Your task to perform on an android device: Toggle the flashlight Image 0: 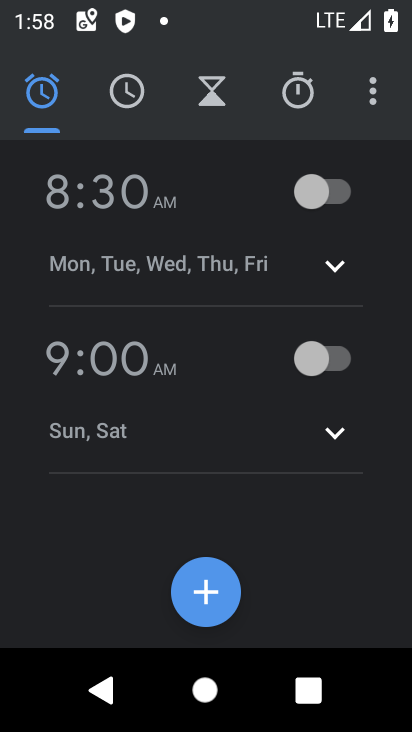
Step 0: press home button
Your task to perform on an android device: Toggle the flashlight Image 1: 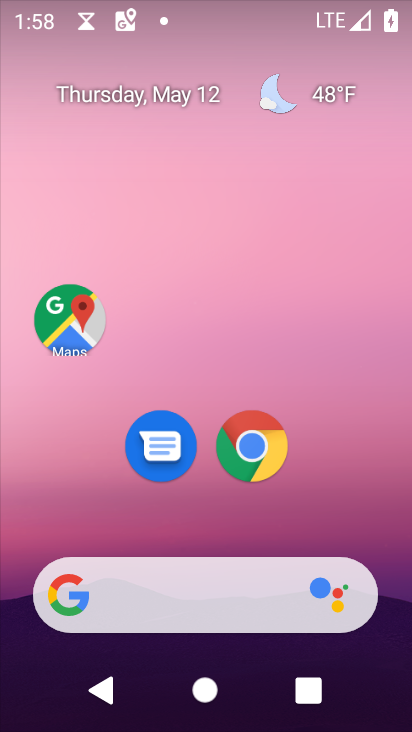
Step 1: drag from (268, 542) to (255, 124)
Your task to perform on an android device: Toggle the flashlight Image 2: 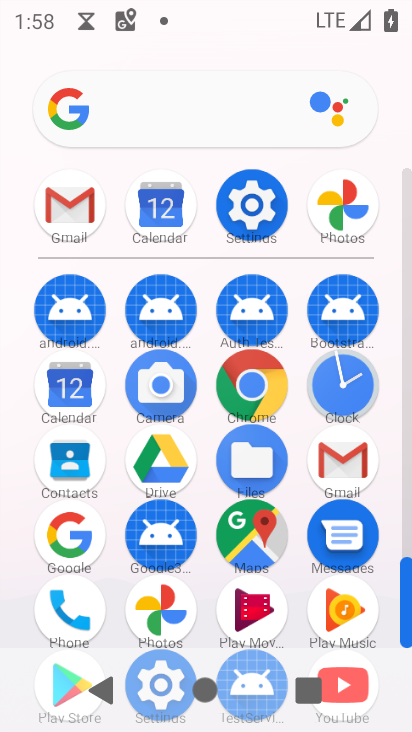
Step 2: click (248, 190)
Your task to perform on an android device: Toggle the flashlight Image 3: 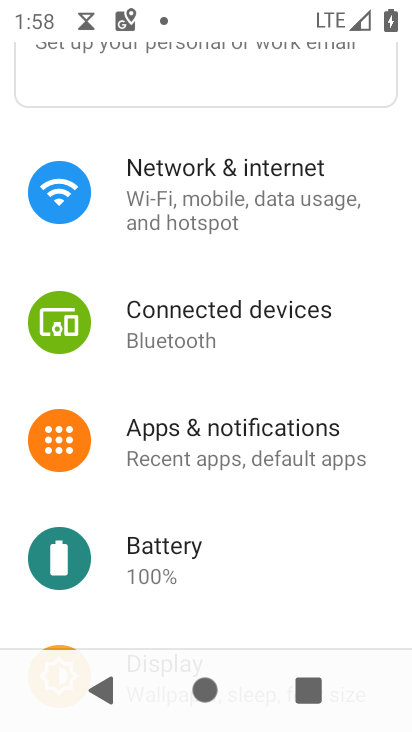
Step 3: drag from (239, 567) to (248, 300)
Your task to perform on an android device: Toggle the flashlight Image 4: 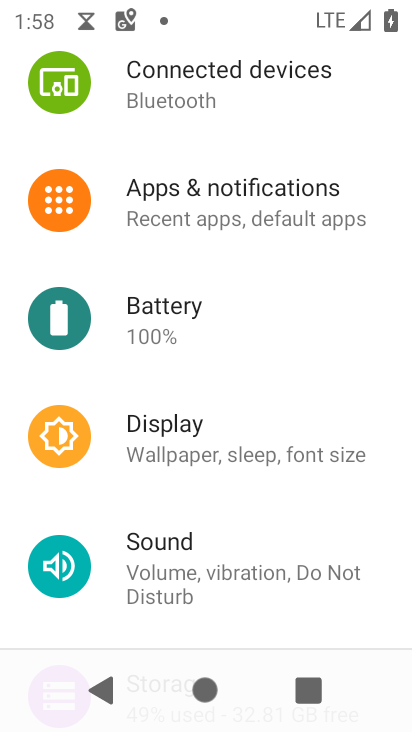
Step 4: drag from (246, 535) to (289, 313)
Your task to perform on an android device: Toggle the flashlight Image 5: 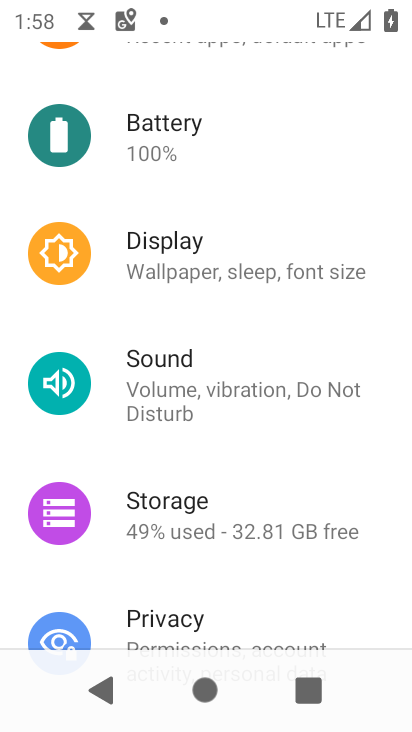
Step 5: click (214, 242)
Your task to perform on an android device: Toggle the flashlight Image 6: 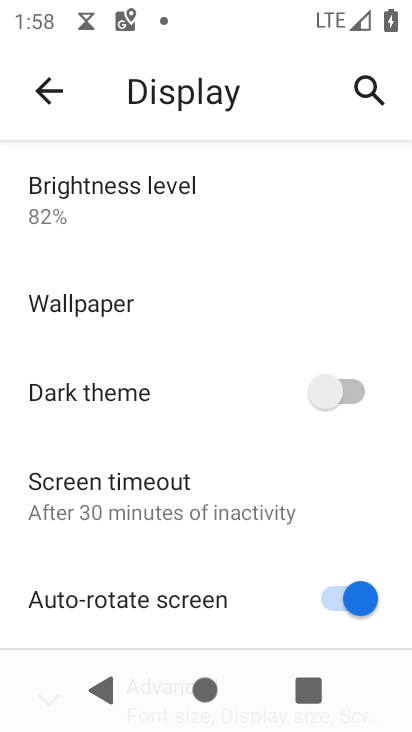
Step 6: drag from (205, 568) to (237, 267)
Your task to perform on an android device: Toggle the flashlight Image 7: 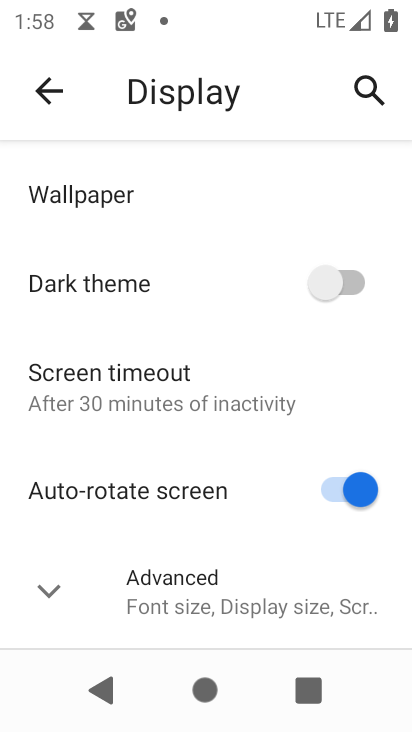
Step 7: click (186, 590)
Your task to perform on an android device: Toggle the flashlight Image 8: 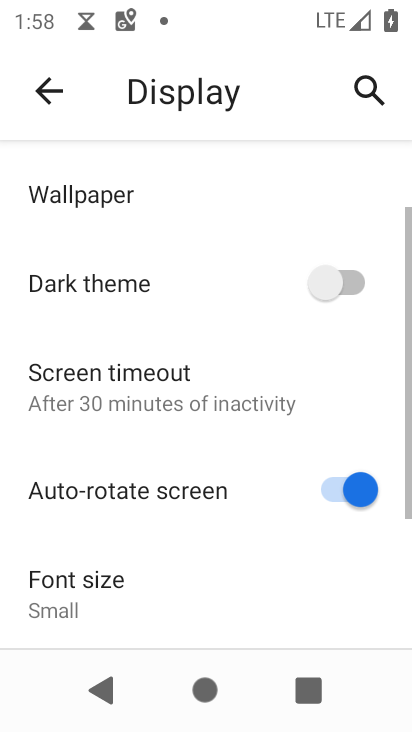
Step 8: task complete